Your task to perform on an android device: change the clock display to digital Image 0: 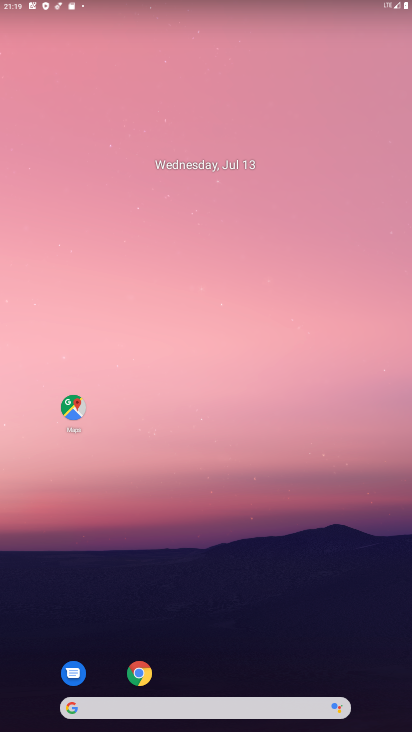
Step 0: drag from (211, 679) to (226, 335)
Your task to perform on an android device: change the clock display to digital Image 1: 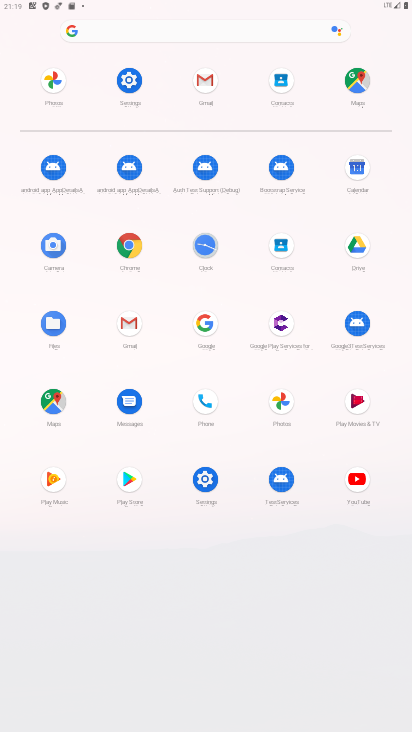
Step 1: click (209, 243)
Your task to perform on an android device: change the clock display to digital Image 2: 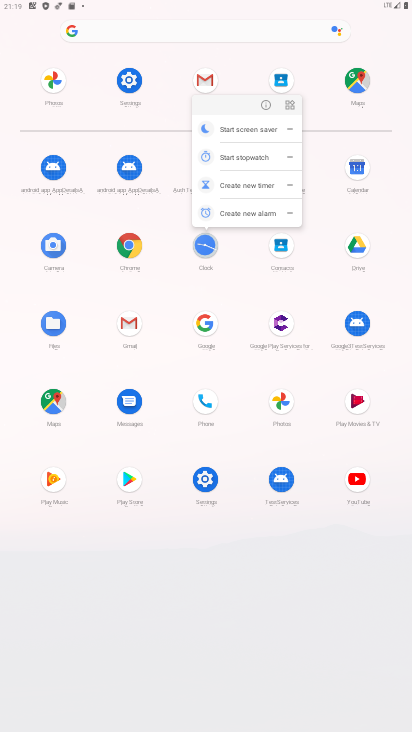
Step 2: click (265, 102)
Your task to perform on an android device: change the clock display to digital Image 3: 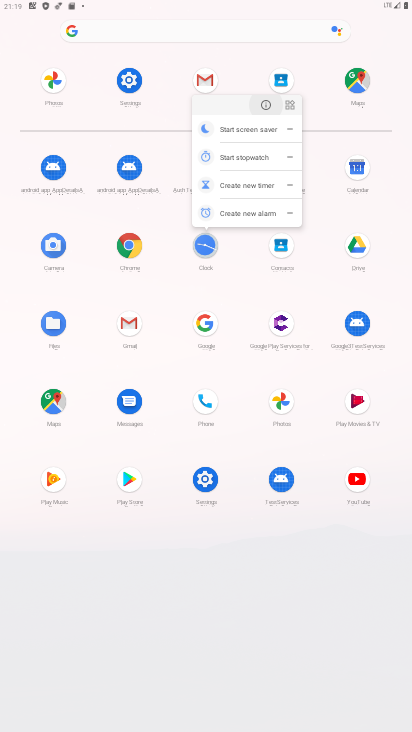
Step 3: click (265, 103)
Your task to perform on an android device: change the clock display to digital Image 4: 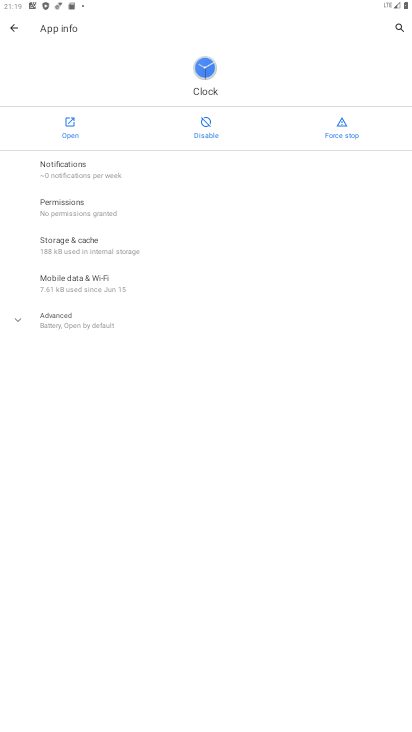
Step 4: click (61, 125)
Your task to perform on an android device: change the clock display to digital Image 5: 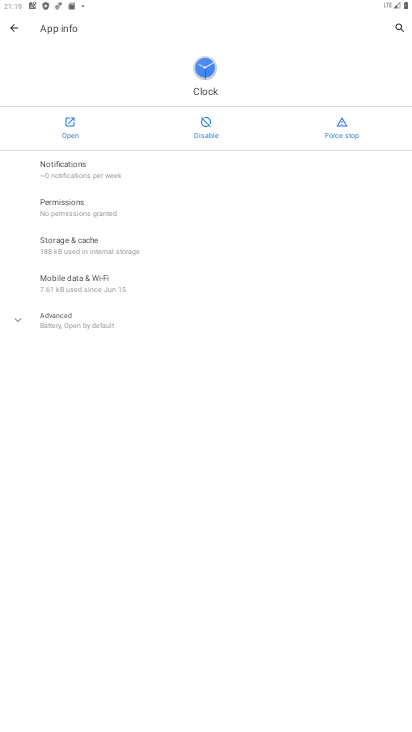
Step 5: click (61, 125)
Your task to perform on an android device: change the clock display to digital Image 6: 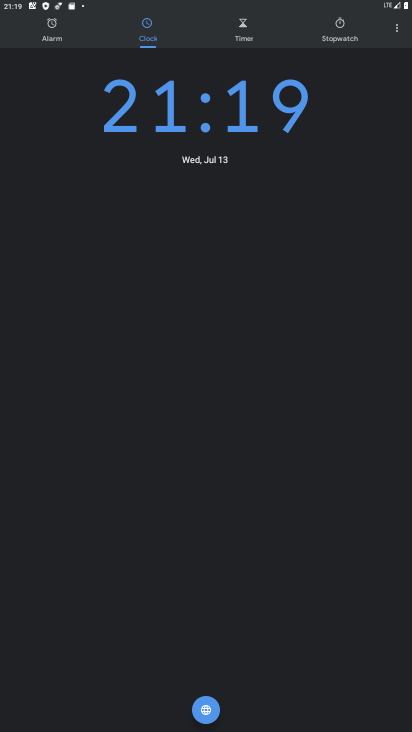
Step 6: click (400, 24)
Your task to perform on an android device: change the clock display to digital Image 7: 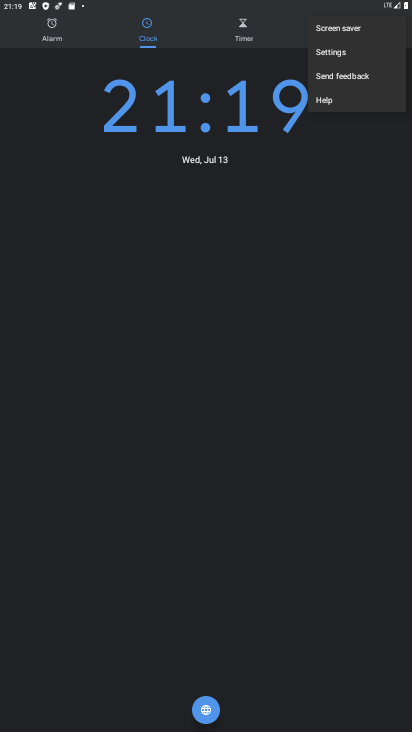
Step 7: click (357, 57)
Your task to perform on an android device: change the clock display to digital Image 8: 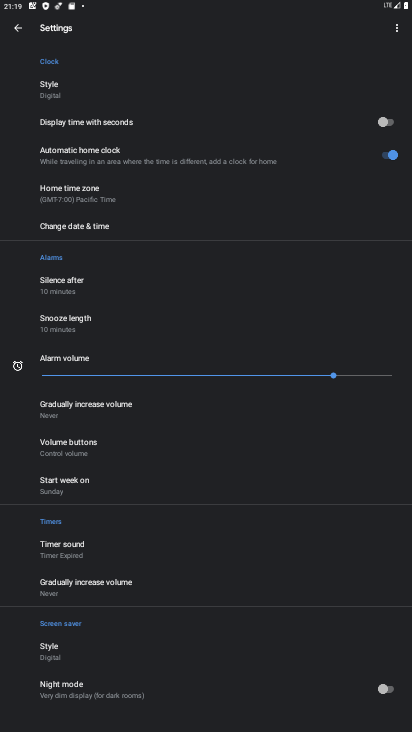
Step 8: click (66, 86)
Your task to perform on an android device: change the clock display to digital Image 9: 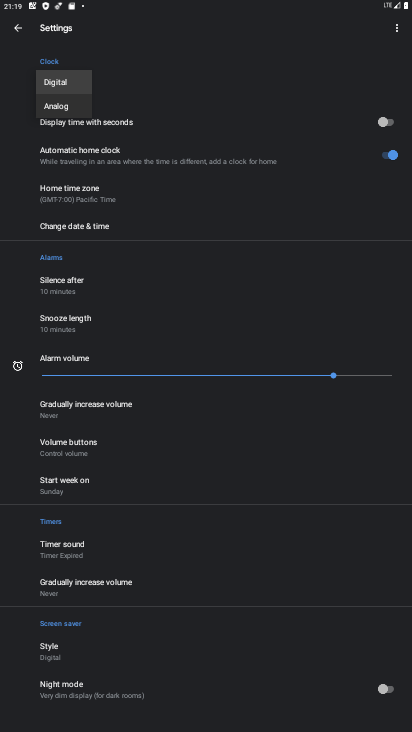
Step 9: click (53, 88)
Your task to perform on an android device: change the clock display to digital Image 10: 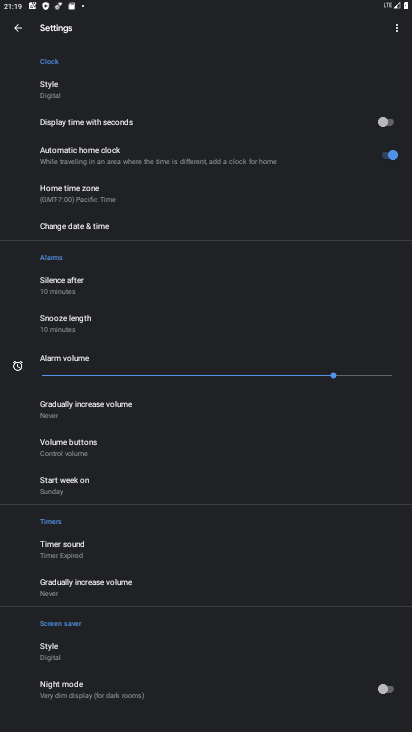
Step 10: task complete